Your task to perform on an android device: Open Amazon Image 0: 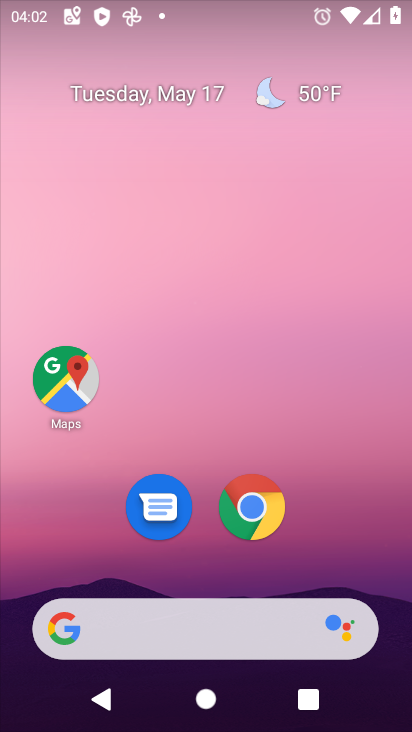
Step 0: click (263, 509)
Your task to perform on an android device: Open Amazon Image 1: 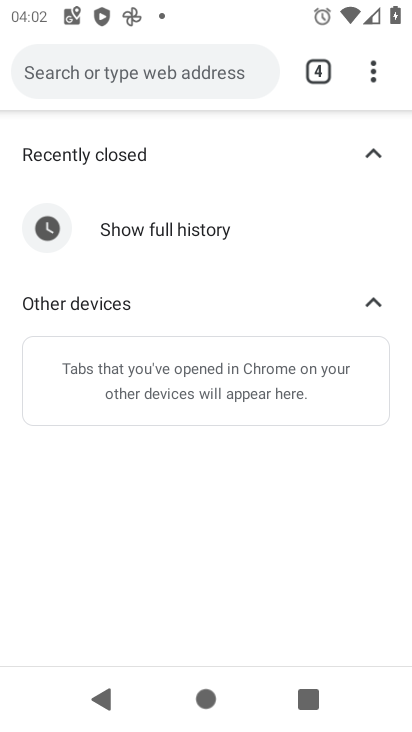
Step 1: click (334, 72)
Your task to perform on an android device: Open Amazon Image 2: 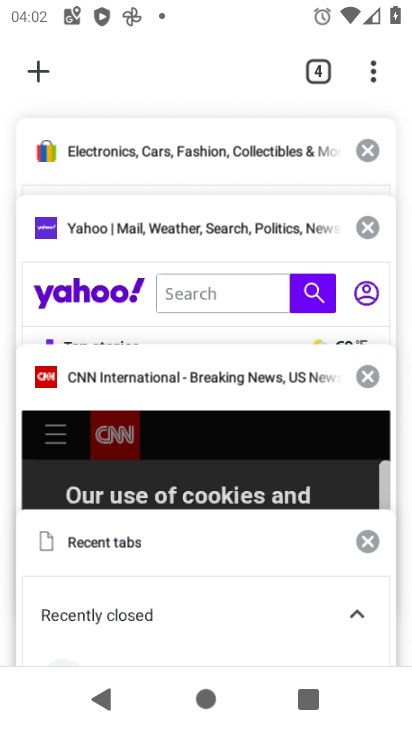
Step 2: click (23, 63)
Your task to perform on an android device: Open Amazon Image 3: 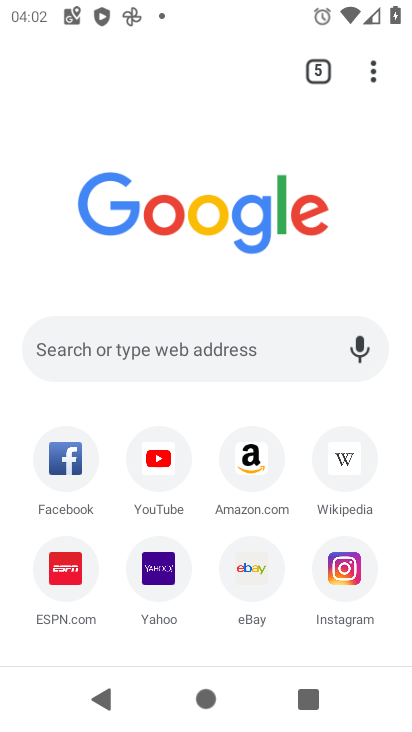
Step 3: click (249, 448)
Your task to perform on an android device: Open Amazon Image 4: 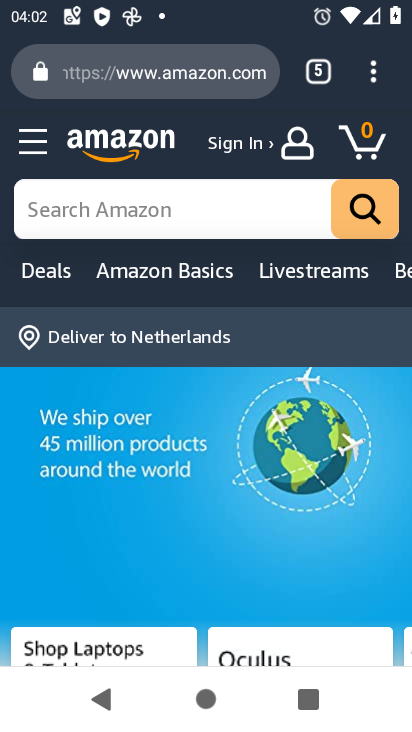
Step 4: task complete